Your task to perform on an android device: Go to Google Image 0: 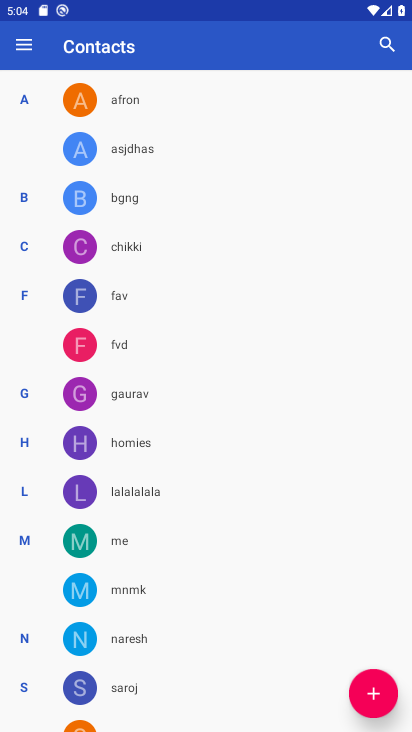
Step 0: press home button
Your task to perform on an android device: Go to Google Image 1: 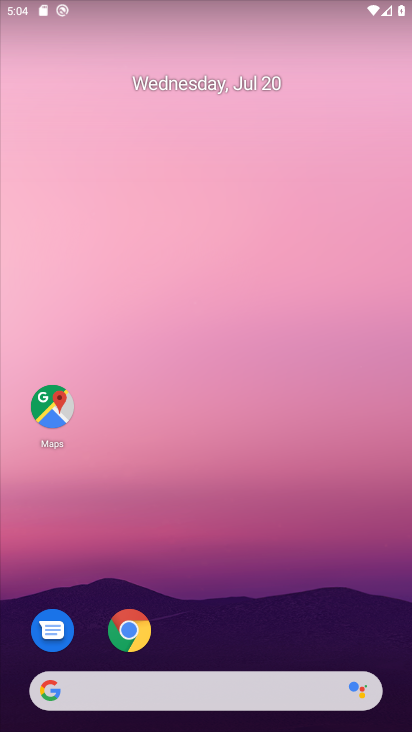
Step 1: click (50, 694)
Your task to perform on an android device: Go to Google Image 2: 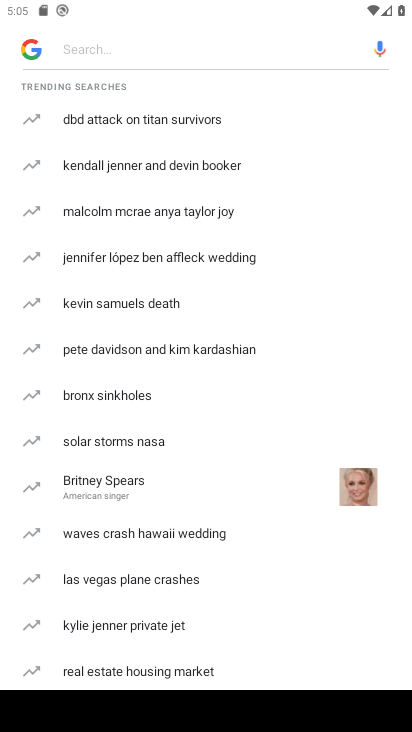
Step 2: task complete